Your task to perform on an android device: Find coffee shops on Maps Image 0: 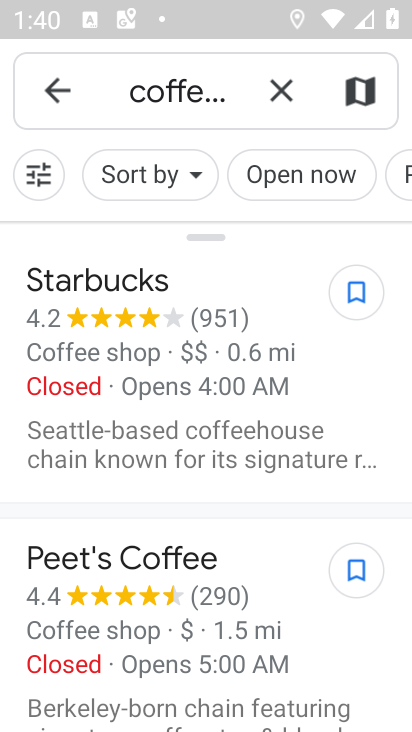
Step 0: click (279, 86)
Your task to perform on an android device: Find coffee shops on Maps Image 1: 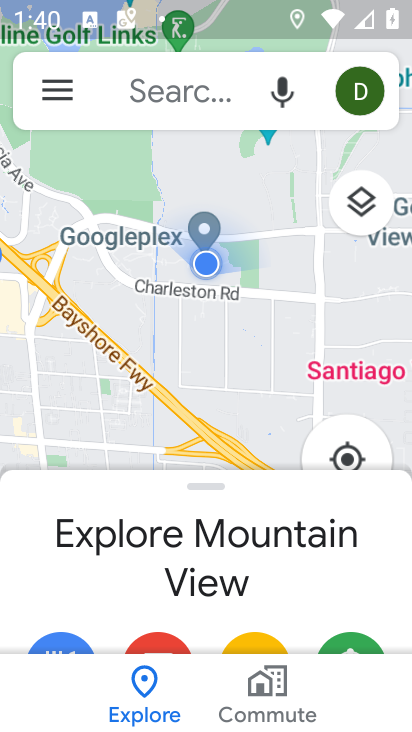
Step 1: click (135, 77)
Your task to perform on an android device: Find coffee shops on Maps Image 2: 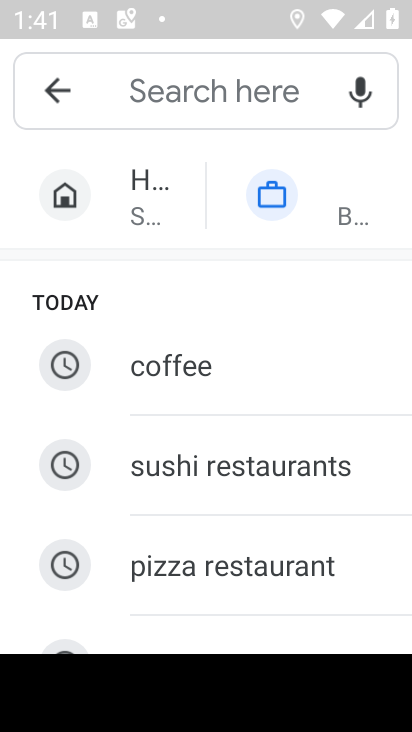
Step 2: type "coffee shop"
Your task to perform on an android device: Find coffee shops on Maps Image 3: 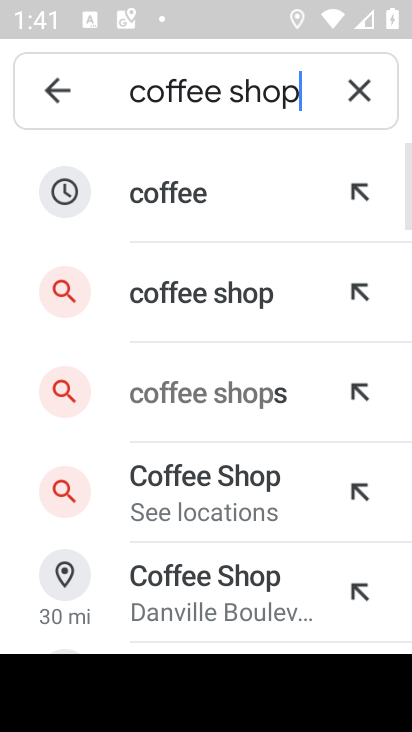
Step 3: click (203, 275)
Your task to perform on an android device: Find coffee shops on Maps Image 4: 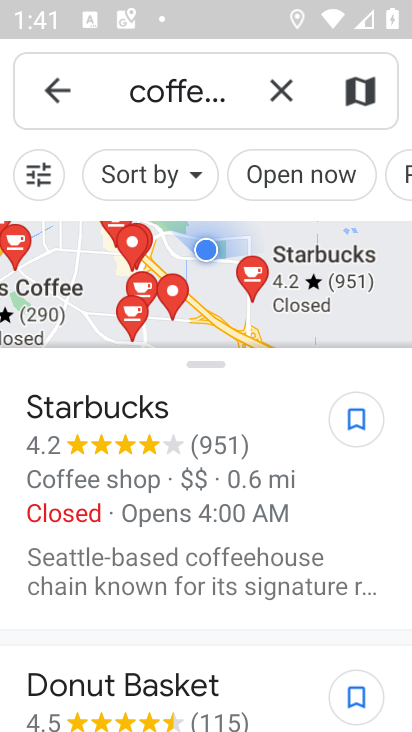
Step 4: task complete